Your task to perform on an android device: turn off location Image 0: 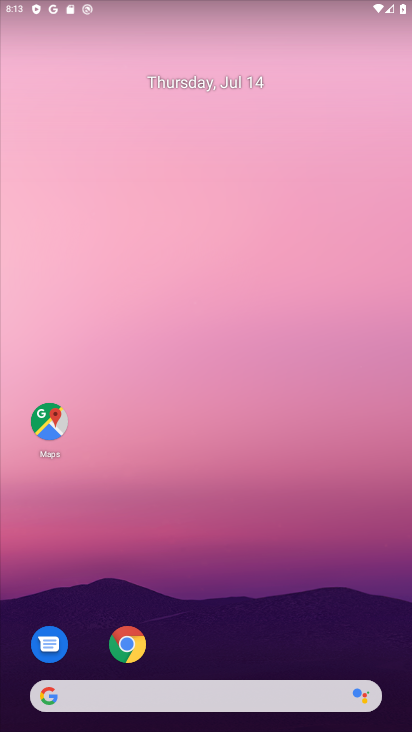
Step 0: drag from (212, 650) to (288, 192)
Your task to perform on an android device: turn off location Image 1: 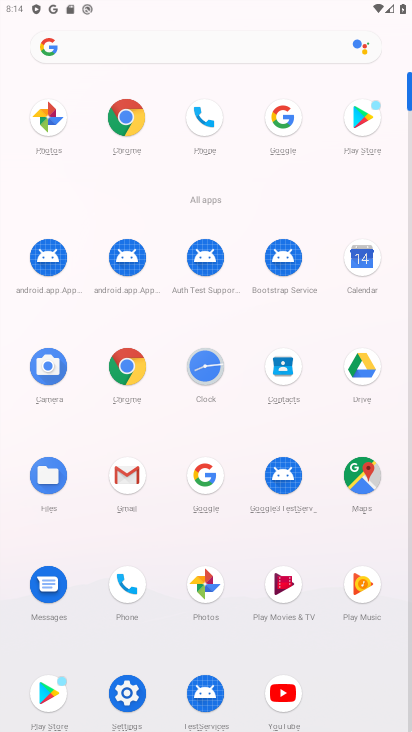
Step 1: click (128, 706)
Your task to perform on an android device: turn off location Image 2: 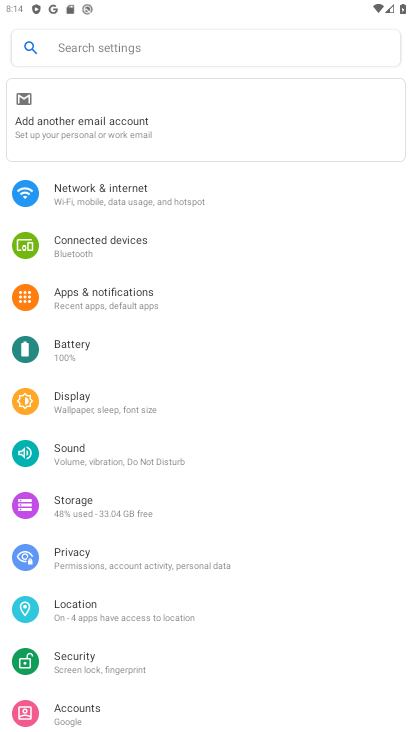
Step 2: click (116, 602)
Your task to perform on an android device: turn off location Image 3: 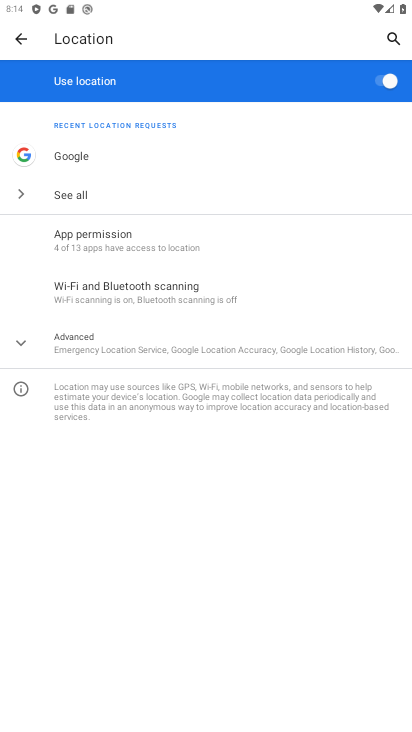
Step 3: click (363, 77)
Your task to perform on an android device: turn off location Image 4: 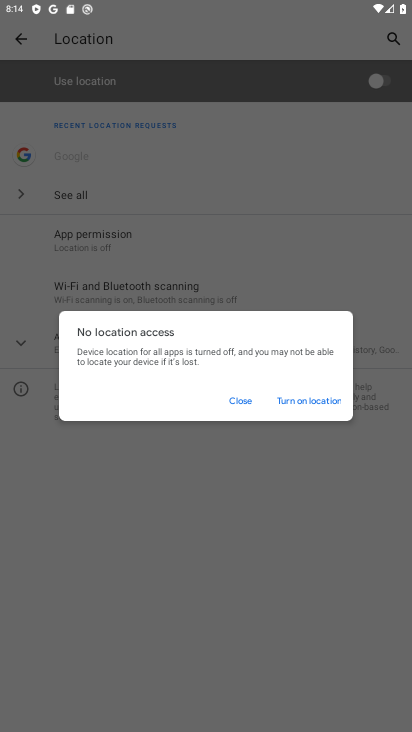
Step 4: click (258, 401)
Your task to perform on an android device: turn off location Image 5: 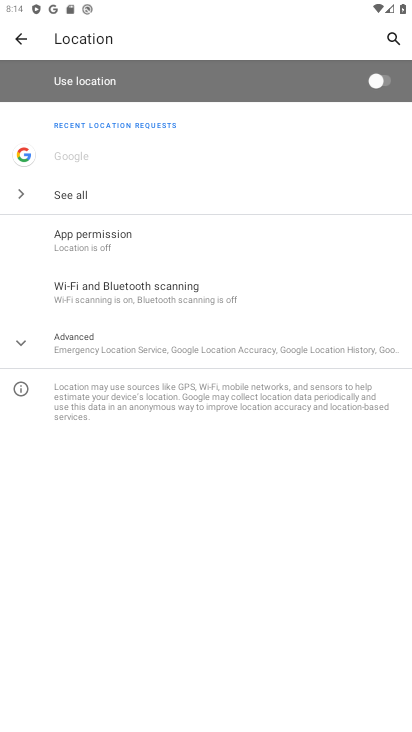
Step 5: task complete